Your task to perform on an android device: turn notification dots on Image 0: 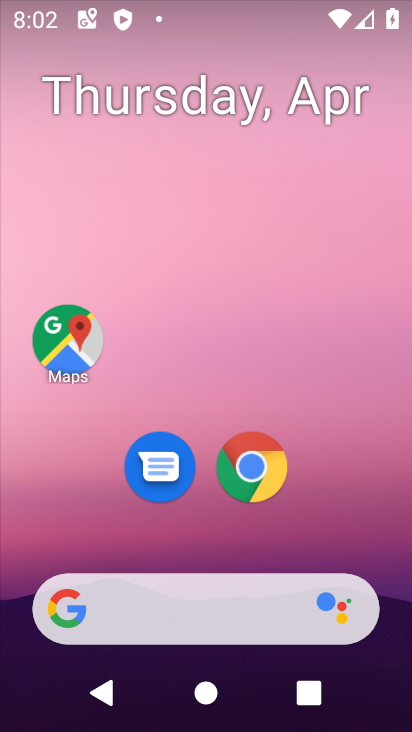
Step 0: click (184, 127)
Your task to perform on an android device: turn notification dots on Image 1: 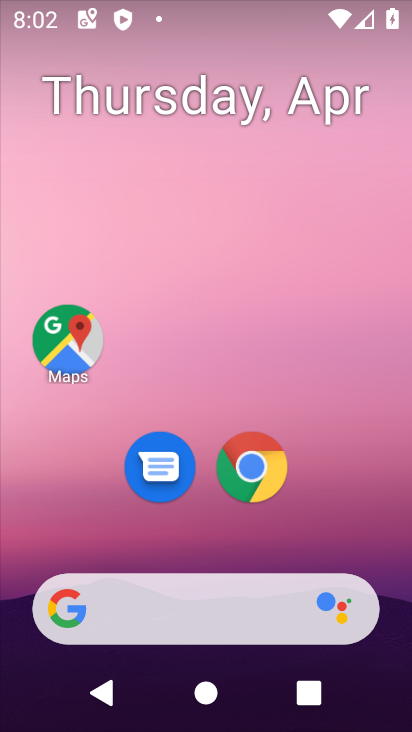
Step 1: drag from (207, 616) to (211, 64)
Your task to perform on an android device: turn notification dots on Image 2: 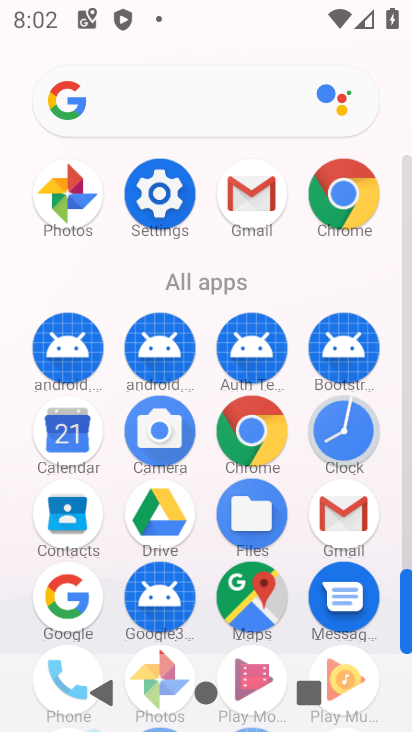
Step 2: click (164, 198)
Your task to perform on an android device: turn notification dots on Image 3: 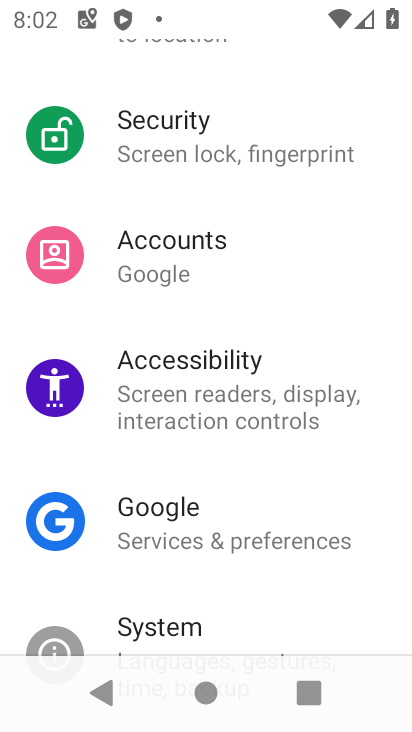
Step 3: drag from (244, 87) to (105, 633)
Your task to perform on an android device: turn notification dots on Image 4: 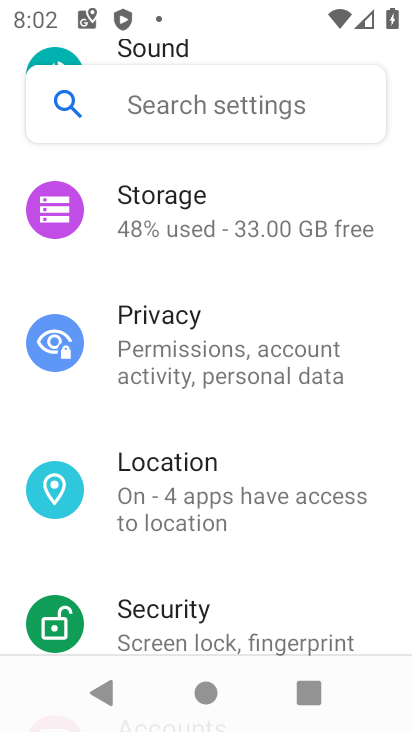
Step 4: drag from (157, 287) to (99, 705)
Your task to perform on an android device: turn notification dots on Image 5: 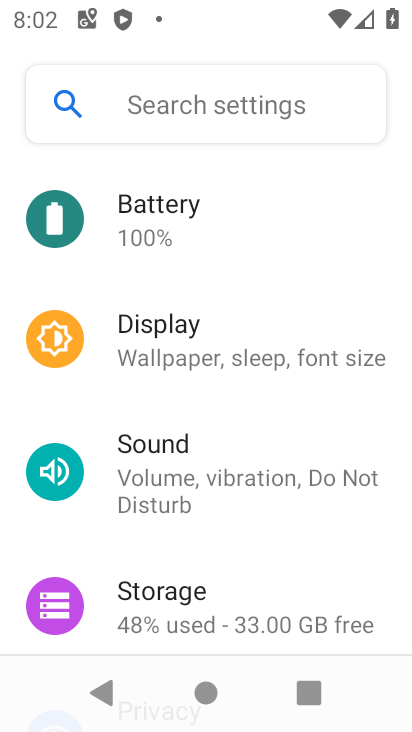
Step 5: drag from (234, 215) to (176, 631)
Your task to perform on an android device: turn notification dots on Image 6: 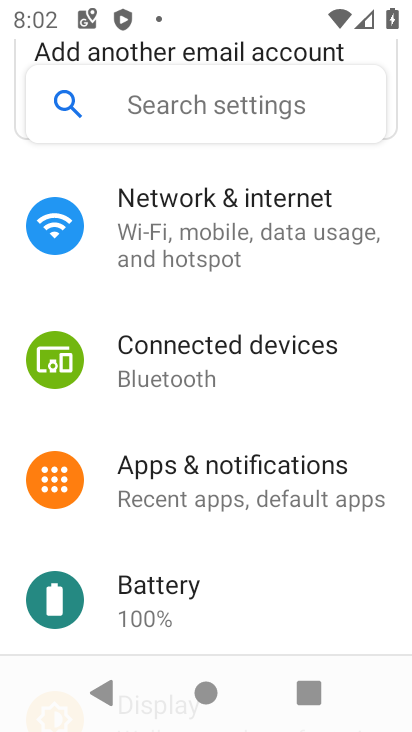
Step 6: click (261, 499)
Your task to perform on an android device: turn notification dots on Image 7: 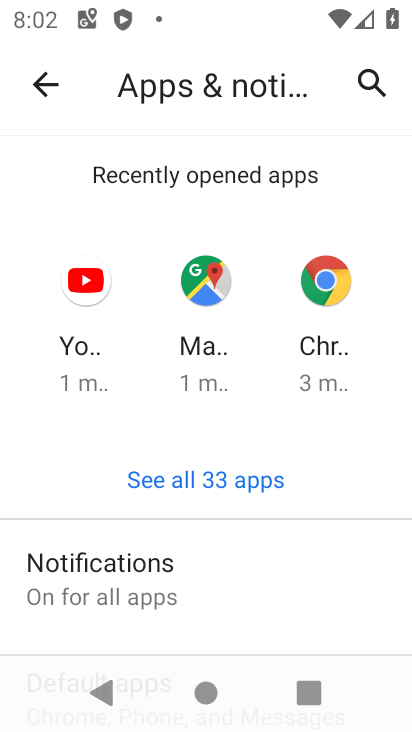
Step 7: click (127, 590)
Your task to perform on an android device: turn notification dots on Image 8: 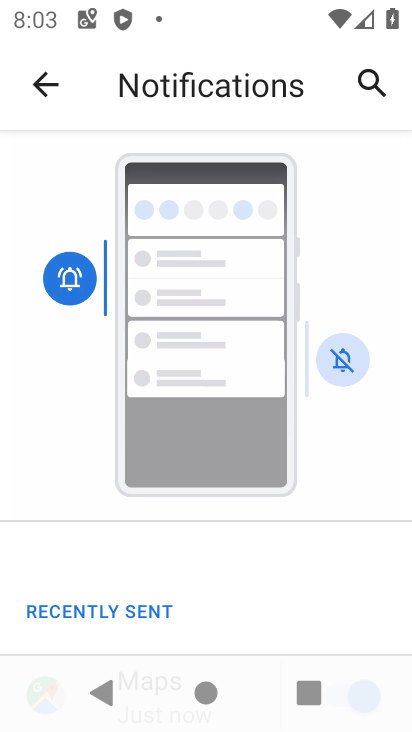
Step 8: drag from (221, 608) to (187, 179)
Your task to perform on an android device: turn notification dots on Image 9: 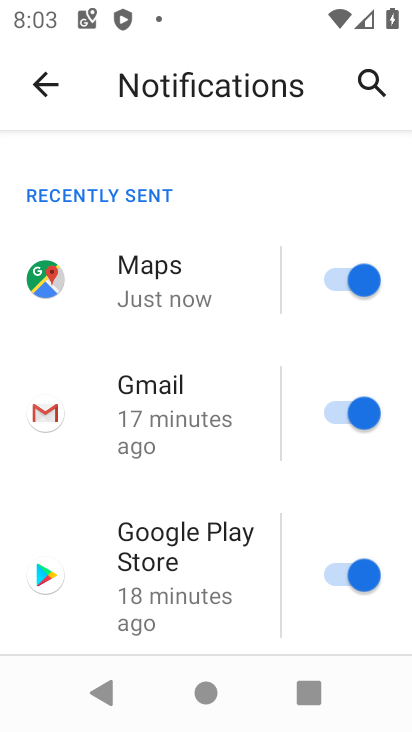
Step 9: drag from (211, 617) to (200, 207)
Your task to perform on an android device: turn notification dots on Image 10: 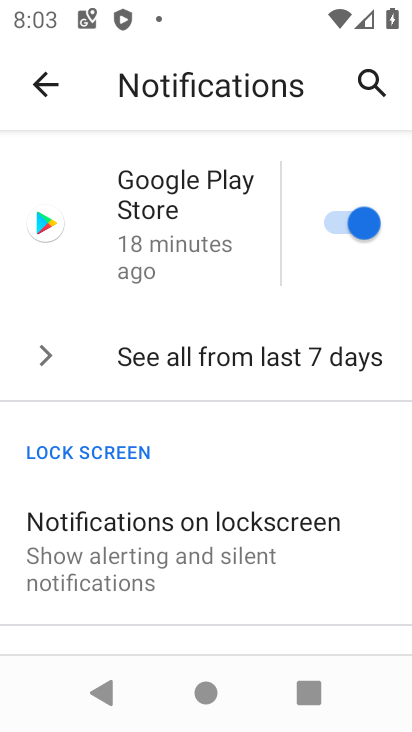
Step 10: drag from (235, 564) to (196, 156)
Your task to perform on an android device: turn notification dots on Image 11: 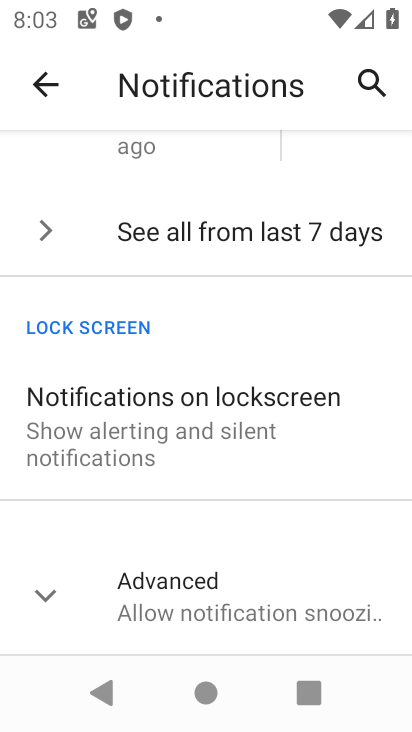
Step 11: click (198, 586)
Your task to perform on an android device: turn notification dots on Image 12: 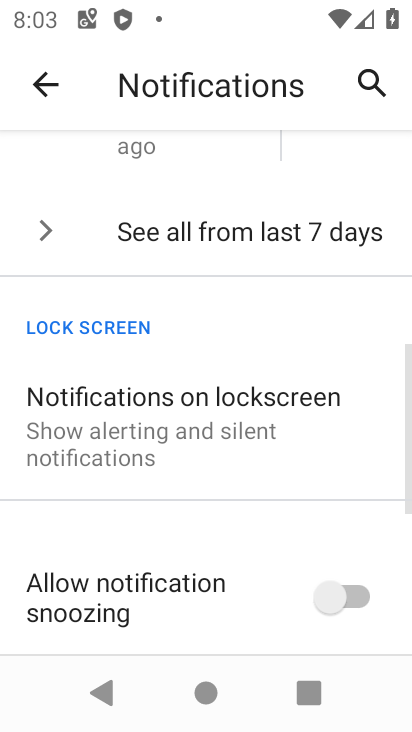
Step 12: task complete